Your task to perform on an android device: turn on notifications settings in the gmail app Image 0: 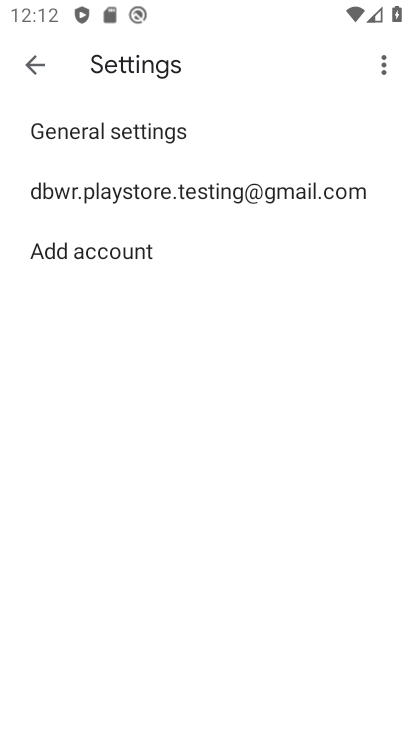
Step 0: click (82, 129)
Your task to perform on an android device: turn on notifications settings in the gmail app Image 1: 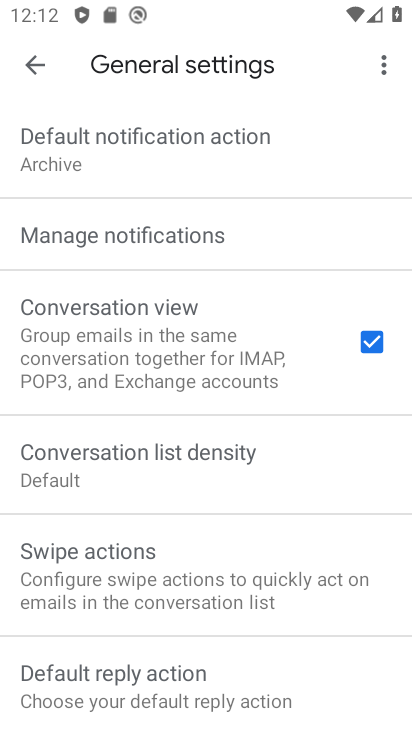
Step 1: click (94, 232)
Your task to perform on an android device: turn on notifications settings in the gmail app Image 2: 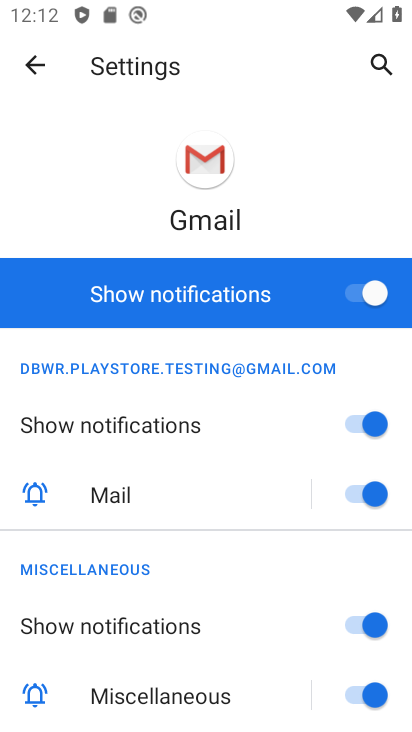
Step 2: task complete